Your task to perform on an android device: turn off wifi Image 0: 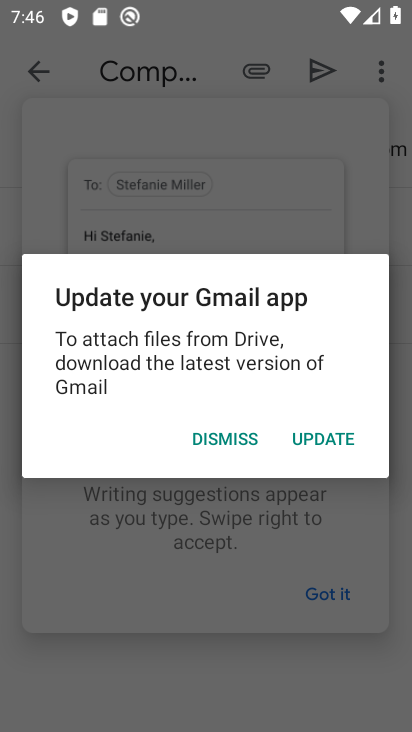
Step 0: press home button
Your task to perform on an android device: turn off wifi Image 1: 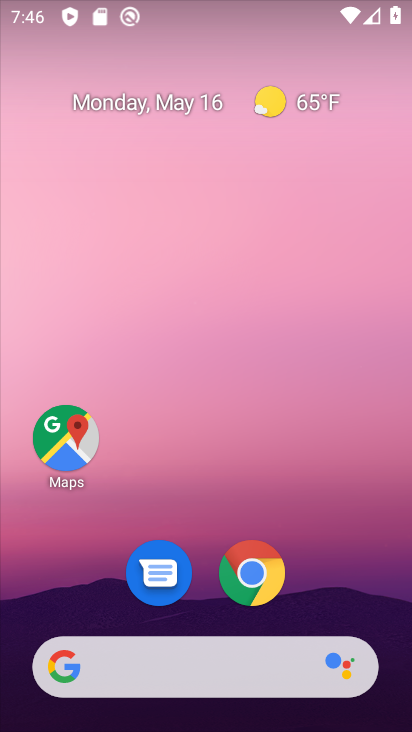
Step 1: drag from (302, 621) to (293, 87)
Your task to perform on an android device: turn off wifi Image 2: 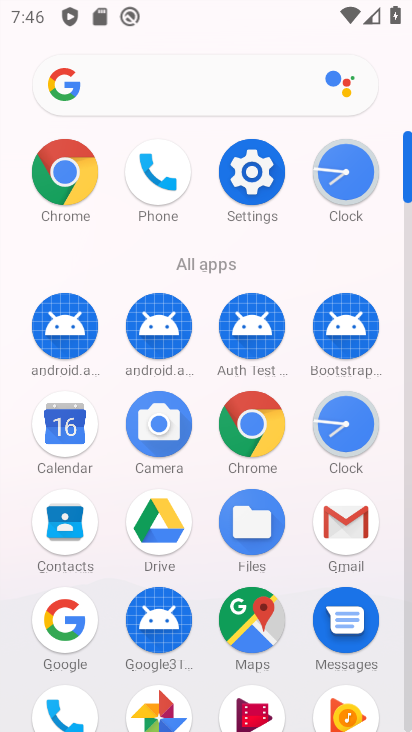
Step 2: click (253, 173)
Your task to perform on an android device: turn off wifi Image 3: 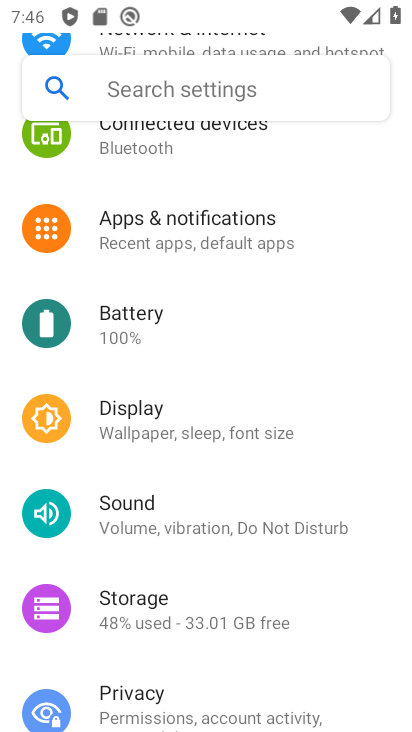
Step 3: drag from (176, 315) to (205, 477)
Your task to perform on an android device: turn off wifi Image 4: 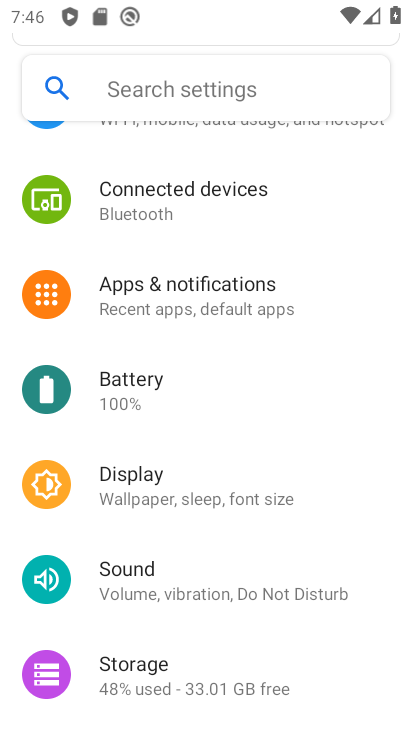
Step 4: drag from (197, 316) to (234, 547)
Your task to perform on an android device: turn off wifi Image 5: 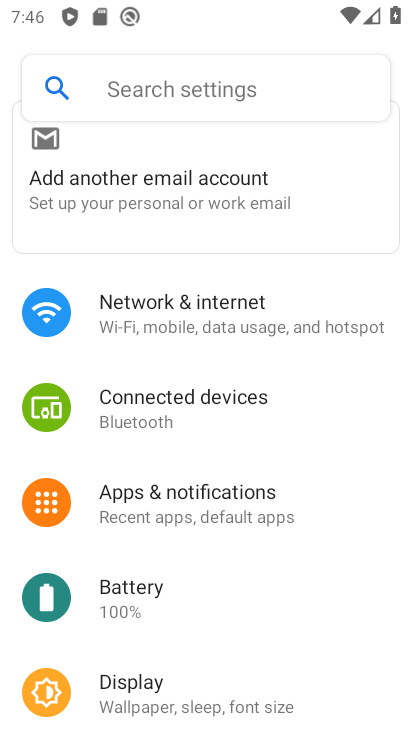
Step 5: click (189, 337)
Your task to perform on an android device: turn off wifi Image 6: 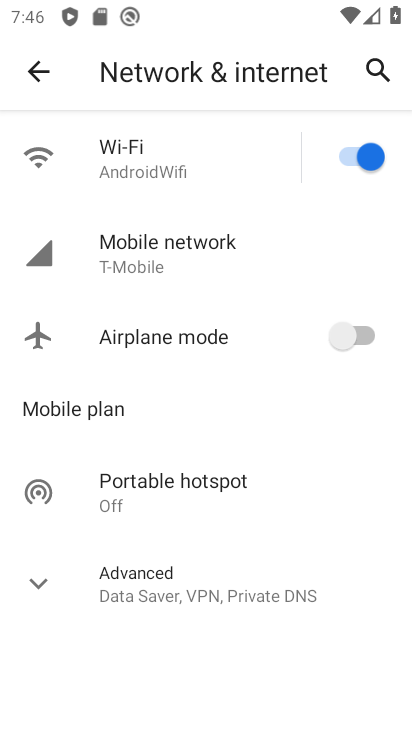
Step 6: click (342, 162)
Your task to perform on an android device: turn off wifi Image 7: 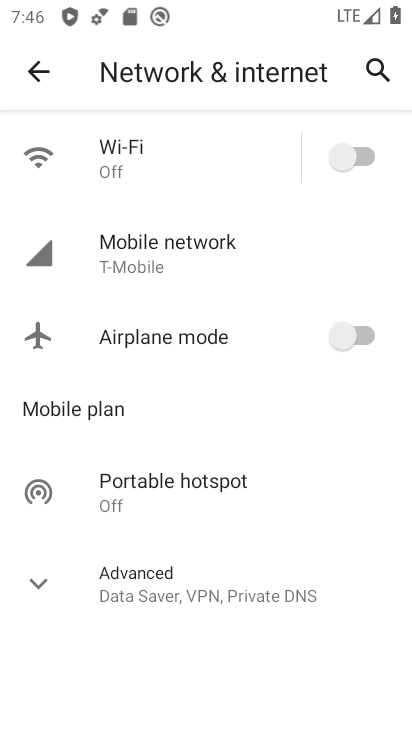
Step 7: task complete